Your task to perform on an android device: Search for flights from San Diego to Seattle Image 0: 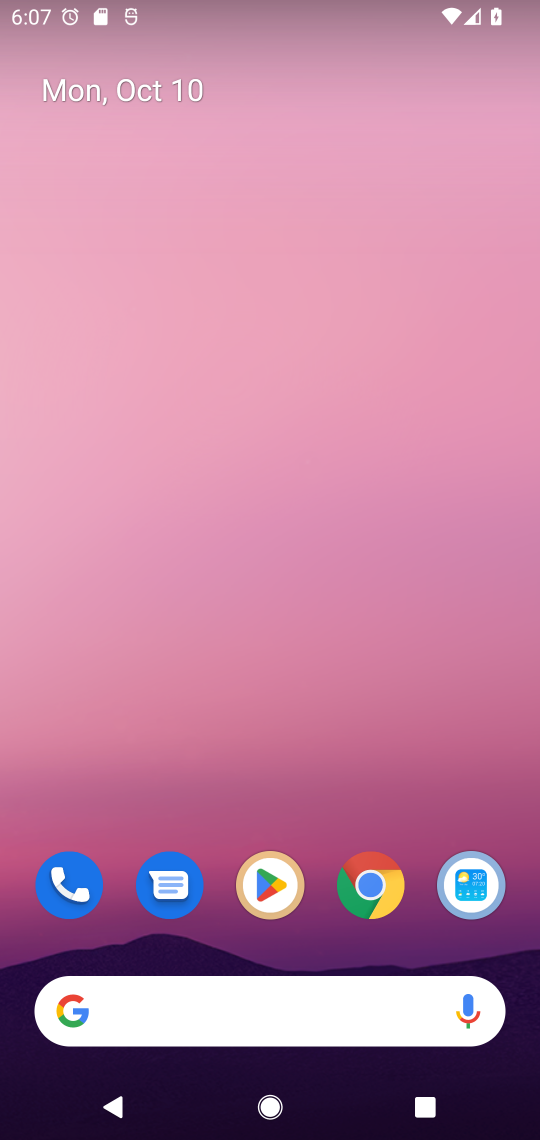
Step 0: click (386, 885)
Your task to perform on an android device: Search for flights from San Diego to Seattle Image 1: 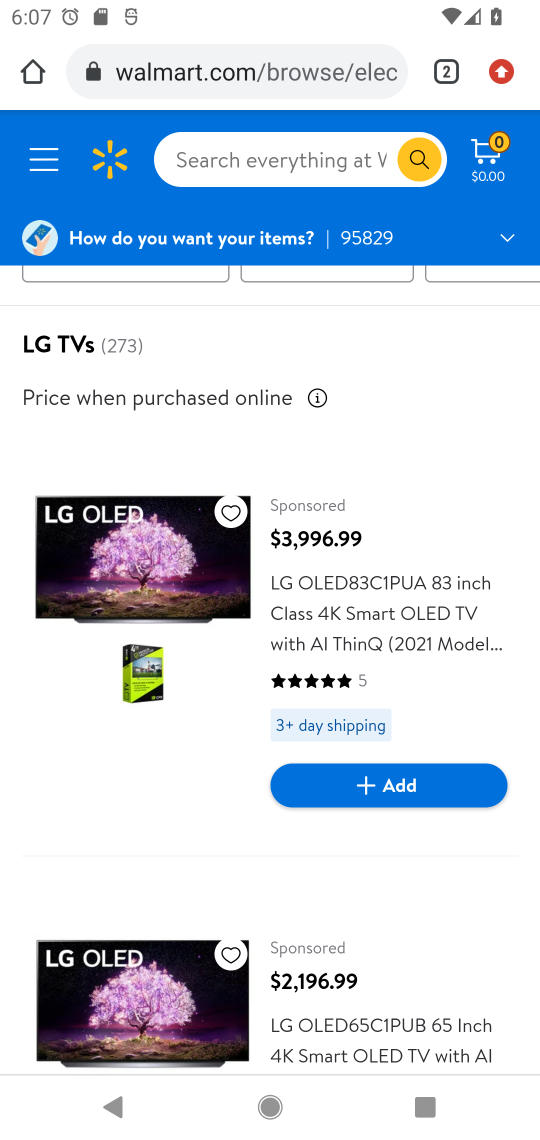
Step 1: click (219, 77)
Your task to perform on an android device: Search for flights from San Diego to Seattle Image 2: 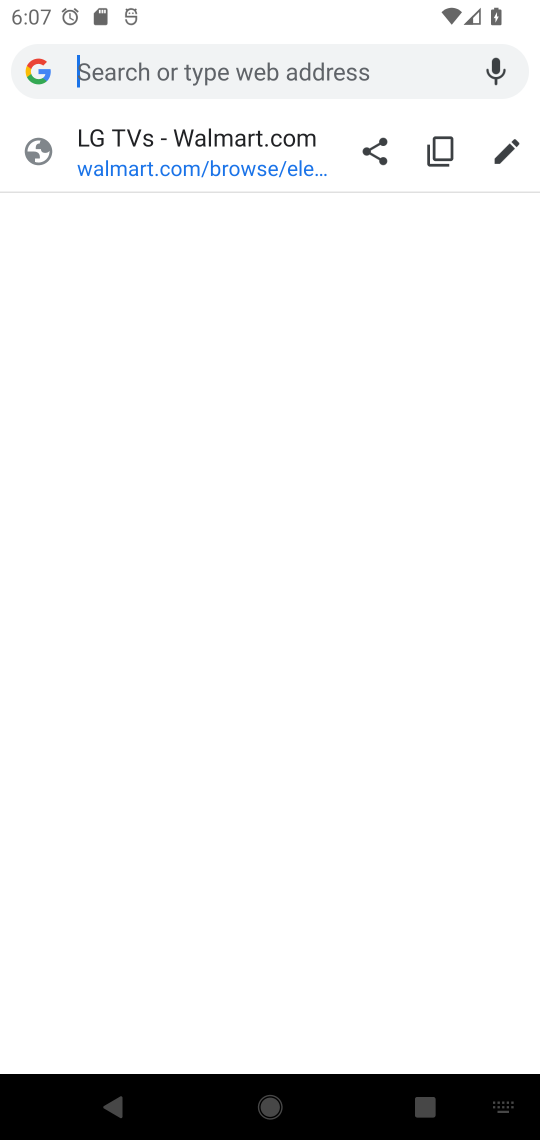
Step 2: type "flights from San Diego to Seattle"
Your task to perform on an android device: Search for flights from San Diego to Seattle Image 3: 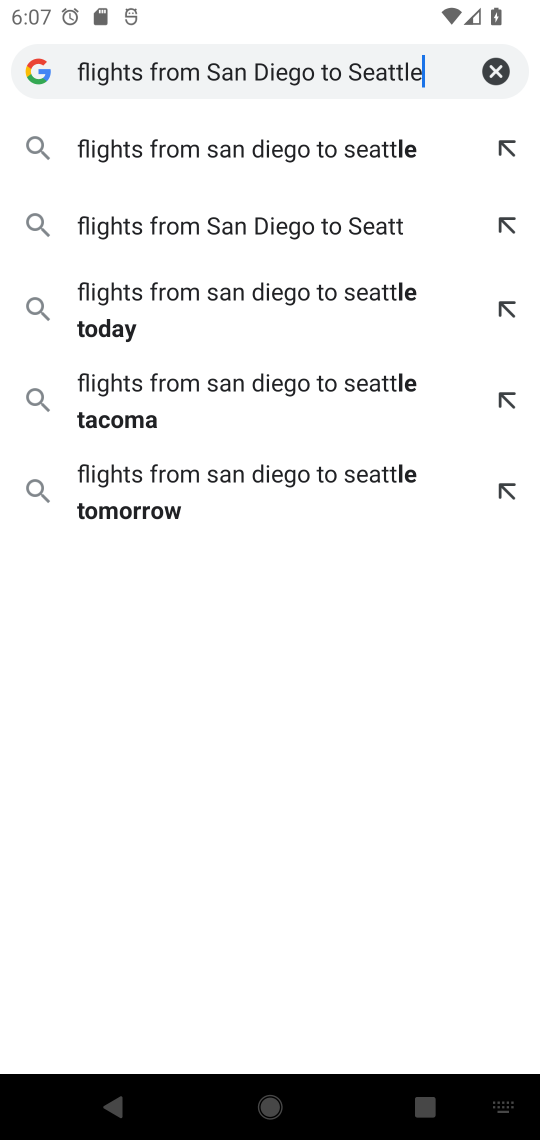
Step 3: type ""
Your task to perform on an android device: Search for flights from San Diego to Seattle Image 4: 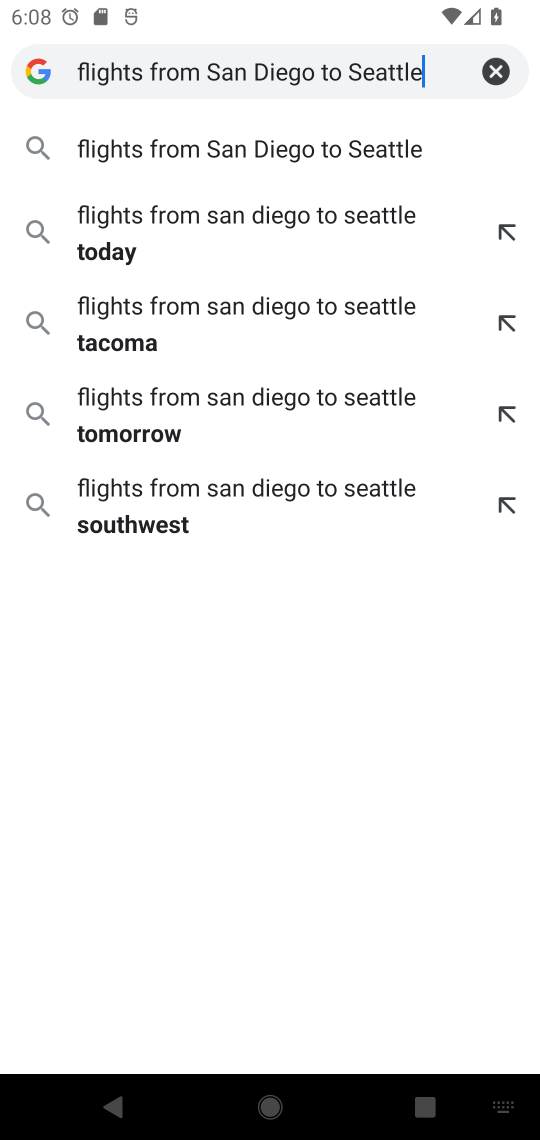
Step 4: click (350, 166)
Your task to perform on an android device: Search for flights from San Diego to Seattle Image 5: 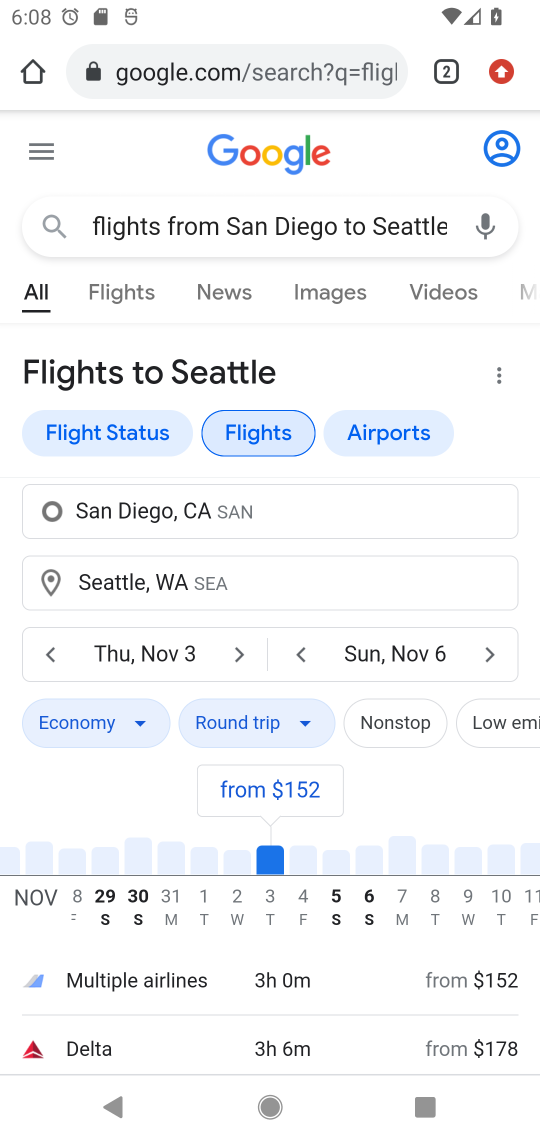
Step 5: click (425, 762)
Your task to perform on an android device: Search for flights from San Diego to Seattle Image 6: 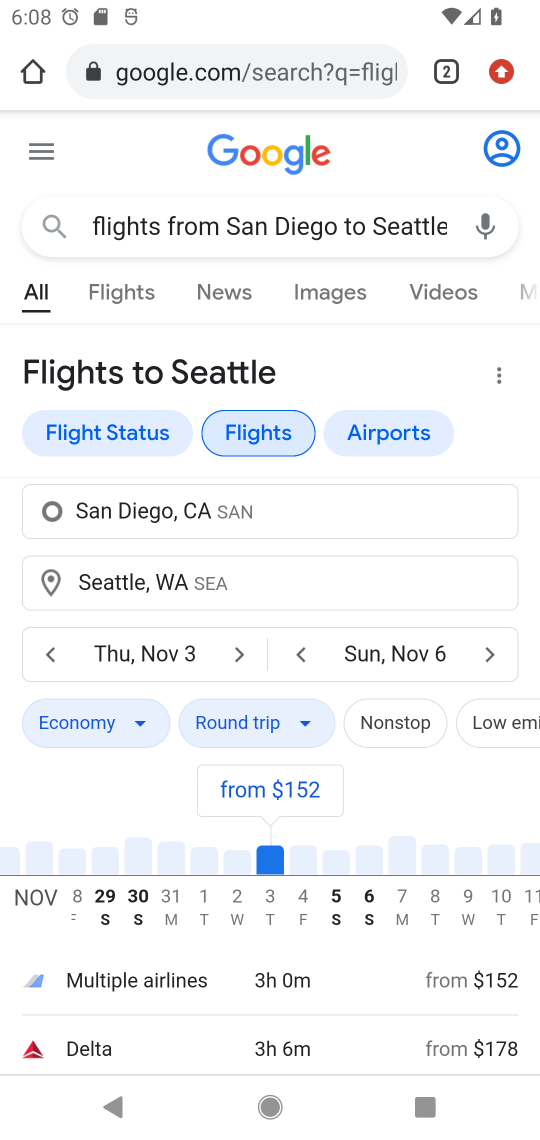
Step 6: drag from (416, 775) to (361, 149)
Your task to perform on an android device: Search for flights from San Diego to Seattle Image 7: 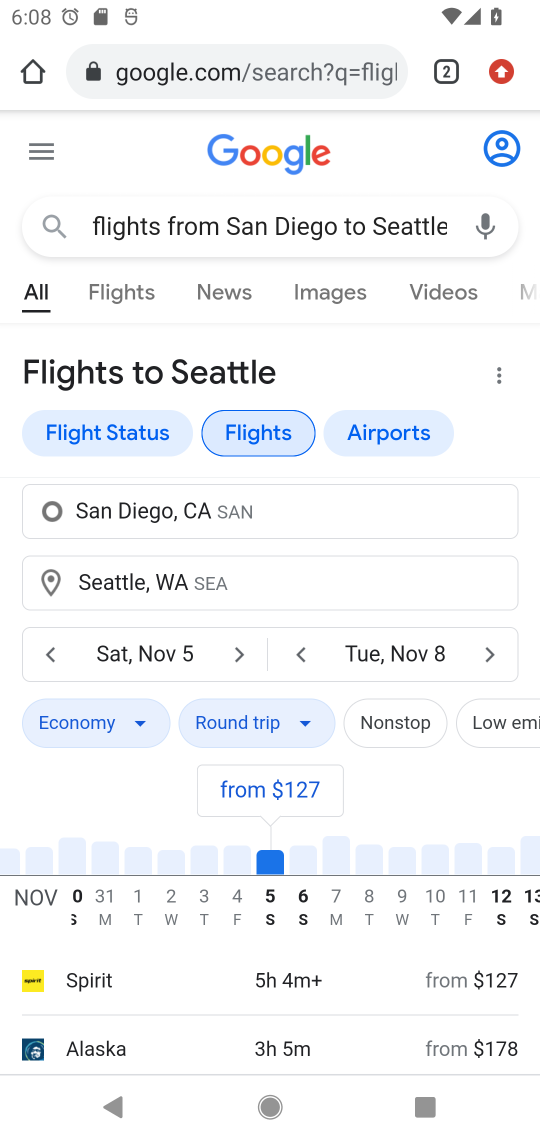
Step 7: drag from (353, 621) to (324, 124)
Your task to perform on an android device: Search for flights from San Diego to Seattle Image 8: 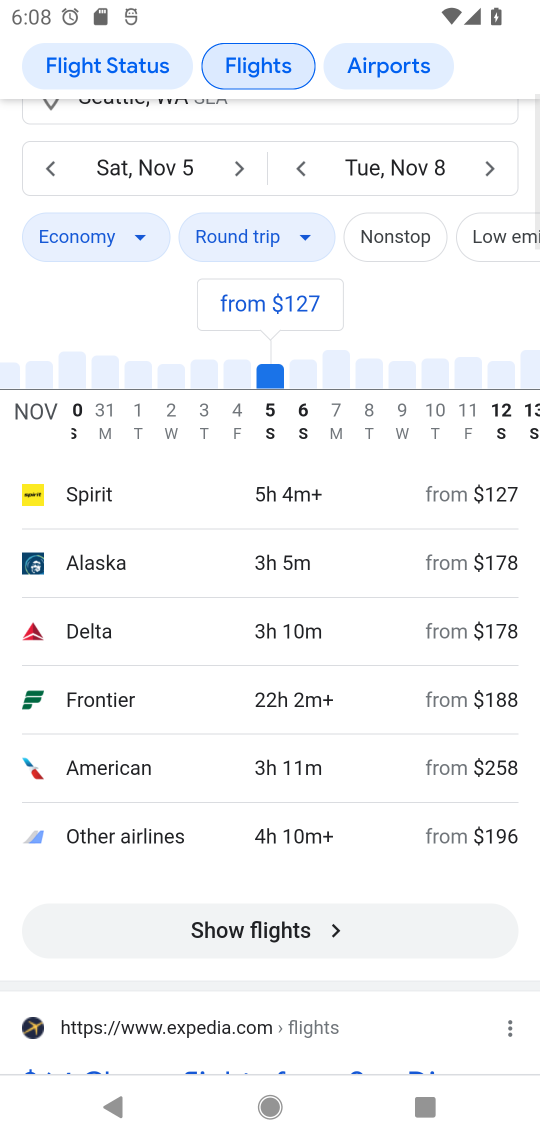
Step 8: click (229, 922)
Your task to perform on an android device: Search for flights from San Diego to Seattle Image 9: 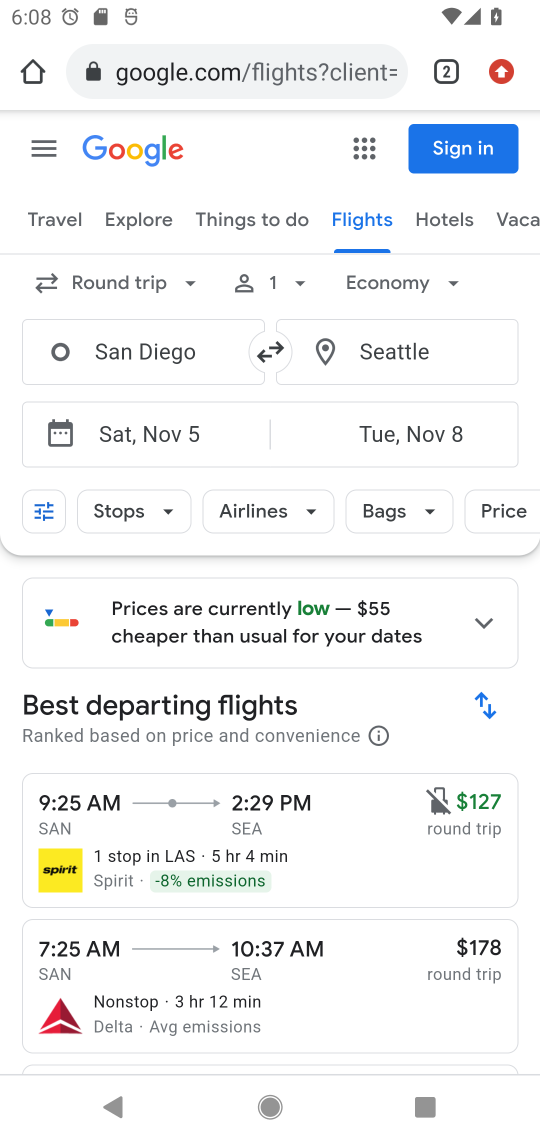
Step 9: task complete